Your task to perform on an android device: Search for dell xps on walmart.com, select the first entry, add it to the cart, then select checkout. Image 0: 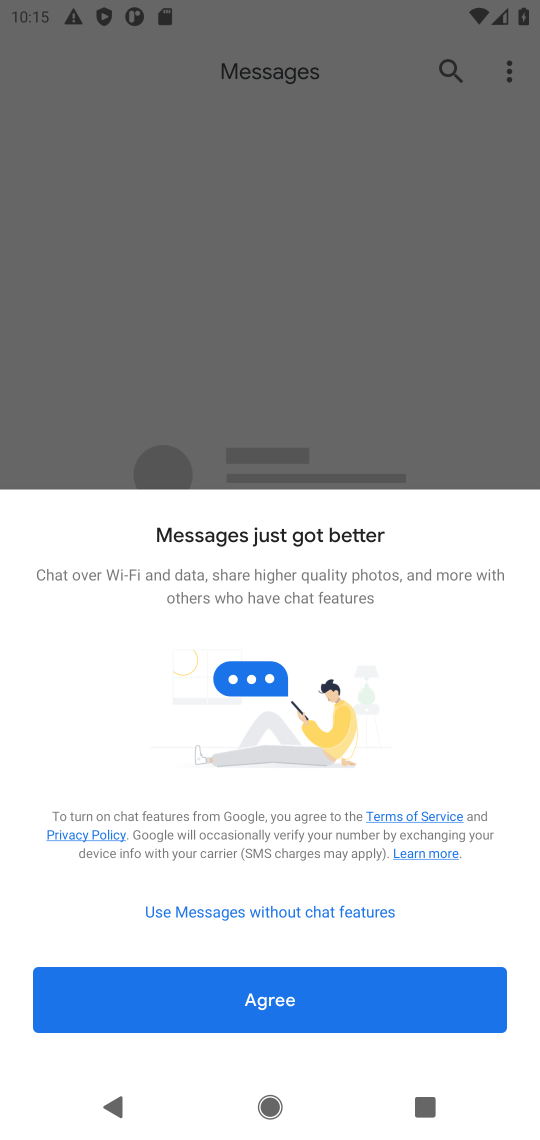
Step 0: press home button
Your task to perform on an android device: Search for dell xps on walmart.com, select the first entry, add it to the cart, then select checkout. Image 1: 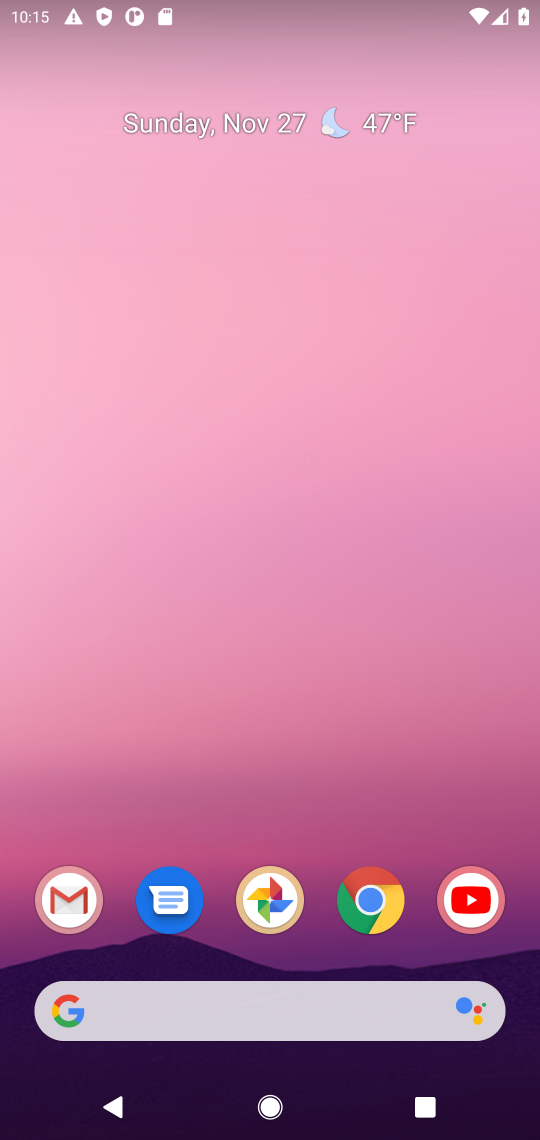
Step 1: click (368, 910)
Your task to perform on an android device: Search for dell xps on walmart.com, select the first entry, add it to the cart, then select checkout. Image 2: 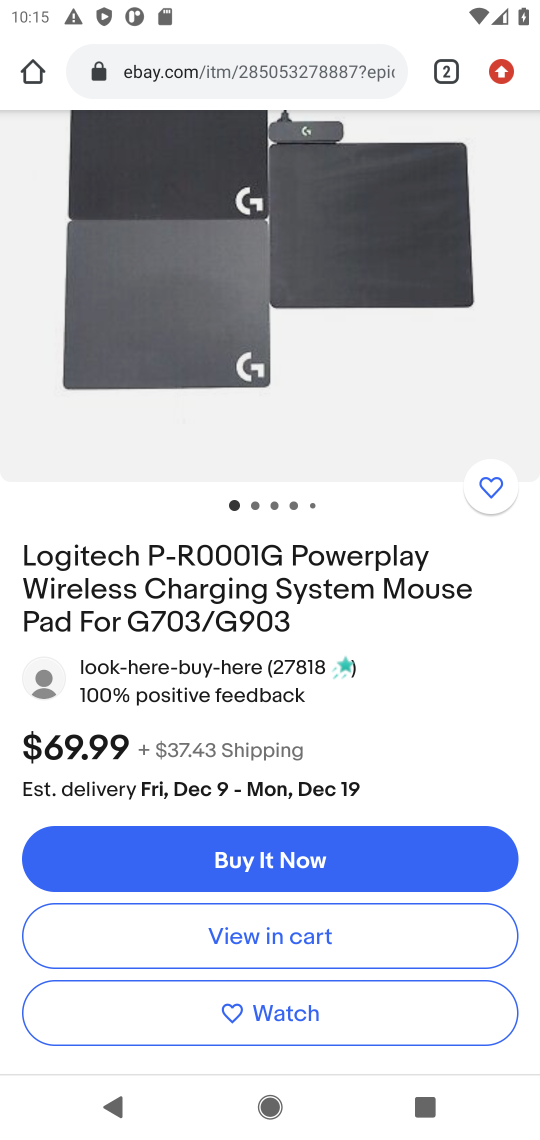
Step 2: click (240, 76)
Your task to perform on an android device: Search for dell xps on walmart.com, select the first entry, add it to the cart, then select checkout. Image 3: 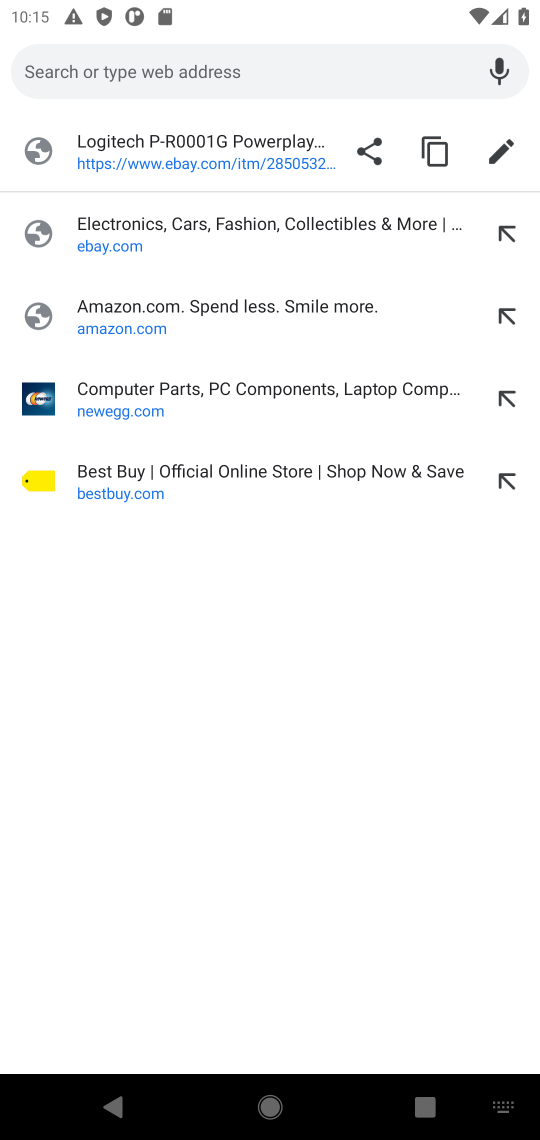
Step 3: type "walmart.com"
Your task to perform on an android device: Search for dell xps on walmart.com, select the first entry, add it to the cart, then select checkout. Image 4: 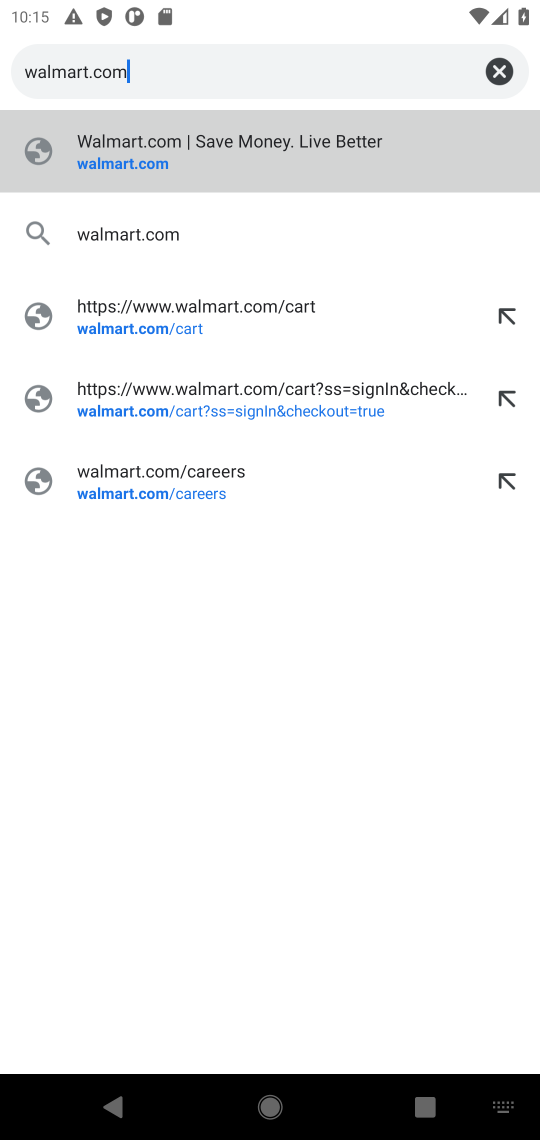
Step 4: click (96, 169)
Your task to perform on an android device: Search for dell xps on walmart.com, select the first entry, add it to the cart, then select checkout. Image 5: 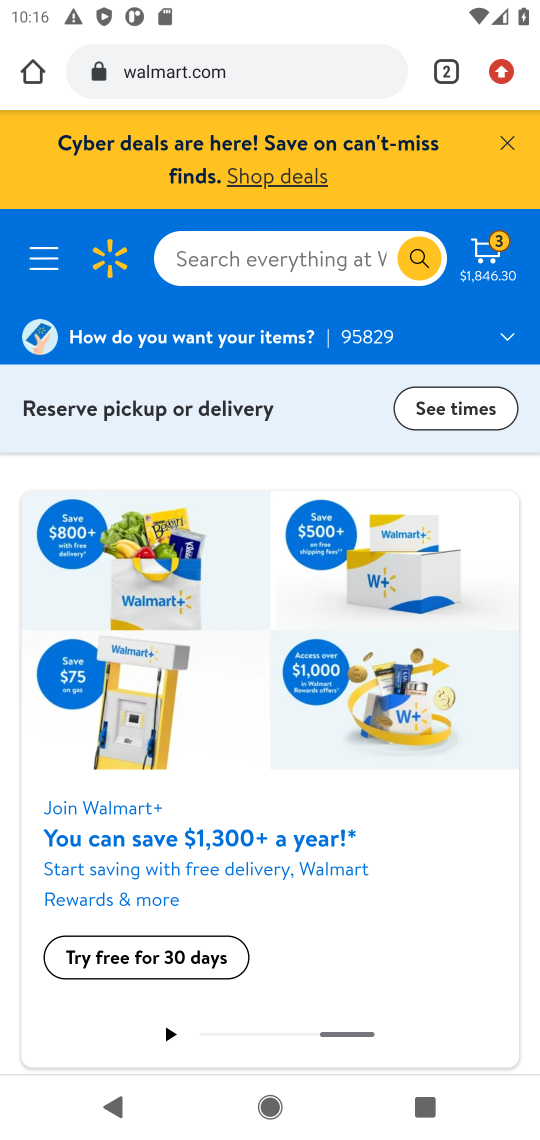
Step 5: click (241, 263)
Your task to perform on an android device: Search for dell xps on walmart.com, select the first entry, add it to the cart, then select checkout. Image 6: 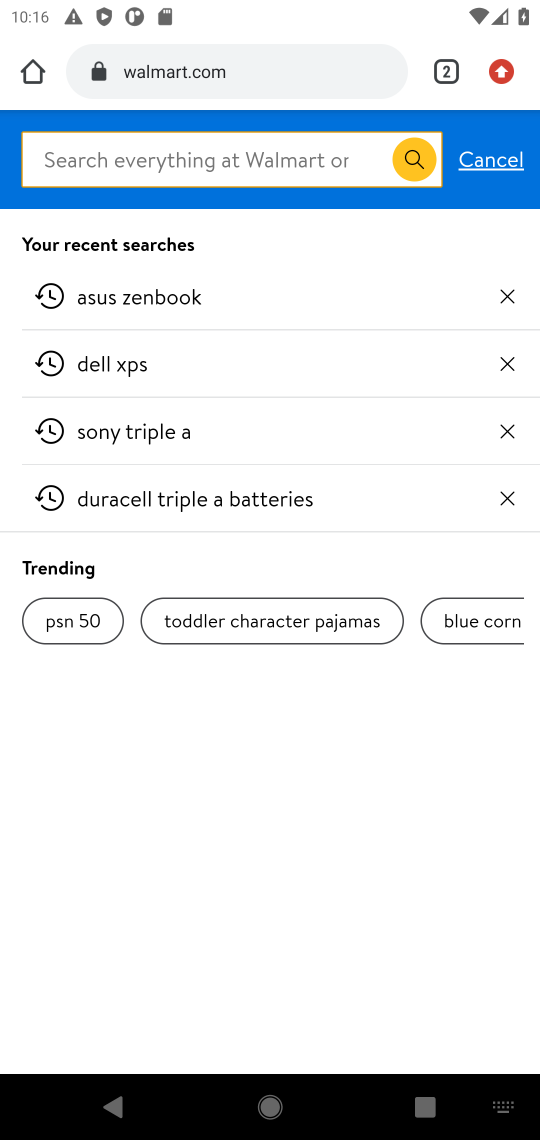
Step 6: type "dell xps"
Your task to perform on an android device: Search for dell xps on walmart.com, select the first entry, add it to the cart, then select checkout. Image 7: 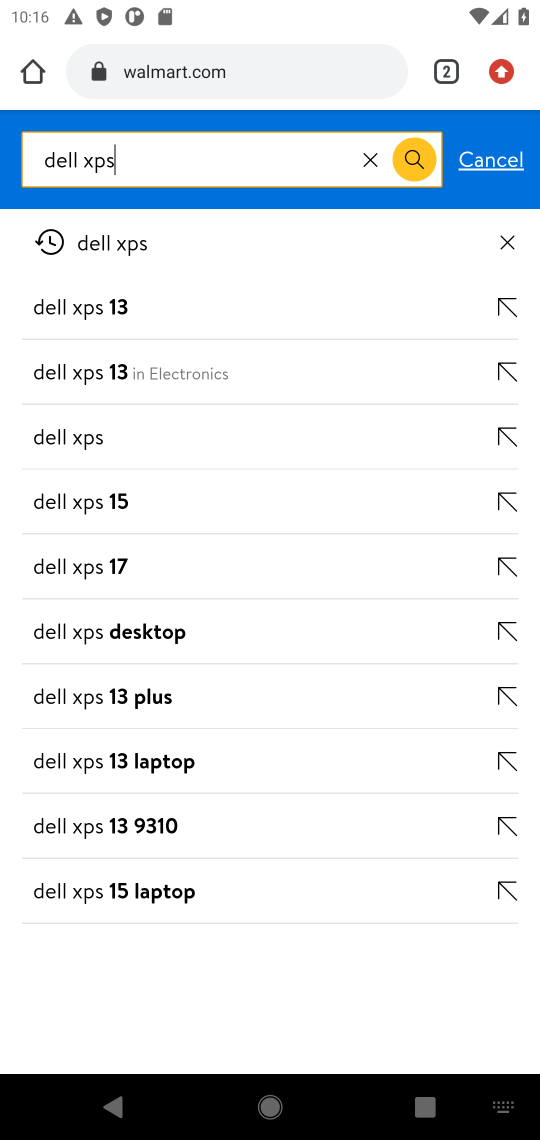
Step 7: click (105, 242)
Your task to perform on an android device: Search for dell xps on walmart.com, select the first entry, add it to the cart, then select checkout. Image 8: 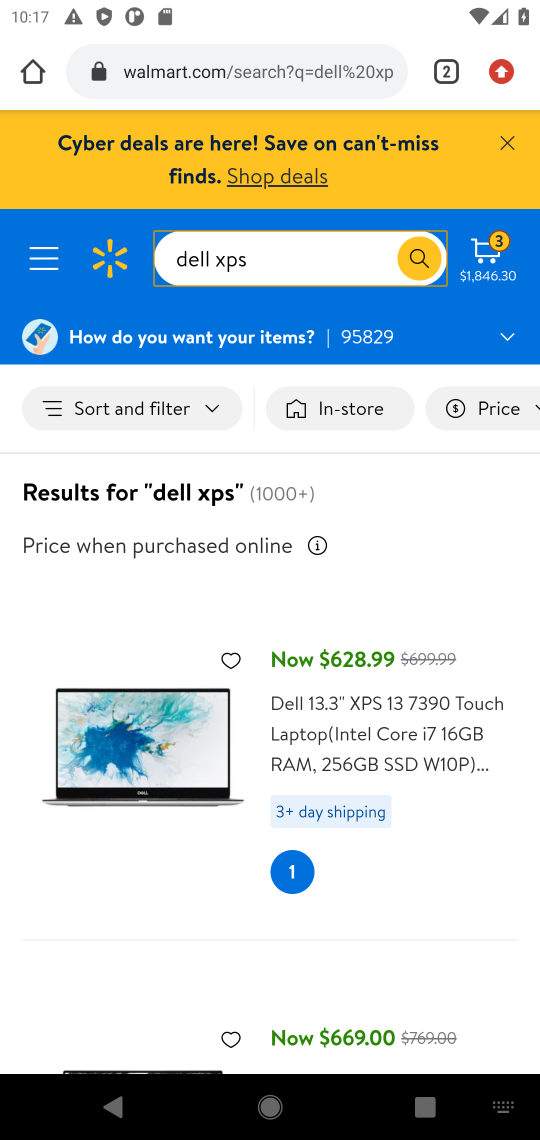
Step 8: click (339, 747)
Your task to perform on an android device: Search for dell xps on walmart.com, select the first entry, add it to the cart, then select checkout. Image 9: 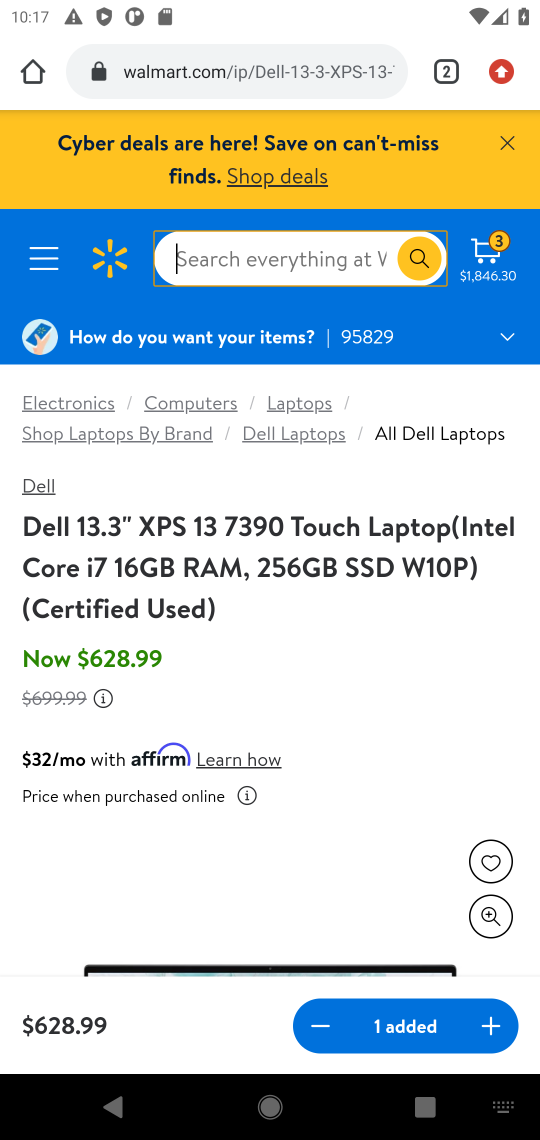
Step 9: click (386, 1037)
Your task to perform on an android device: Search for dell xps on walmart.com, select the first entry, add it to the cart, then select checkout. Image 10: 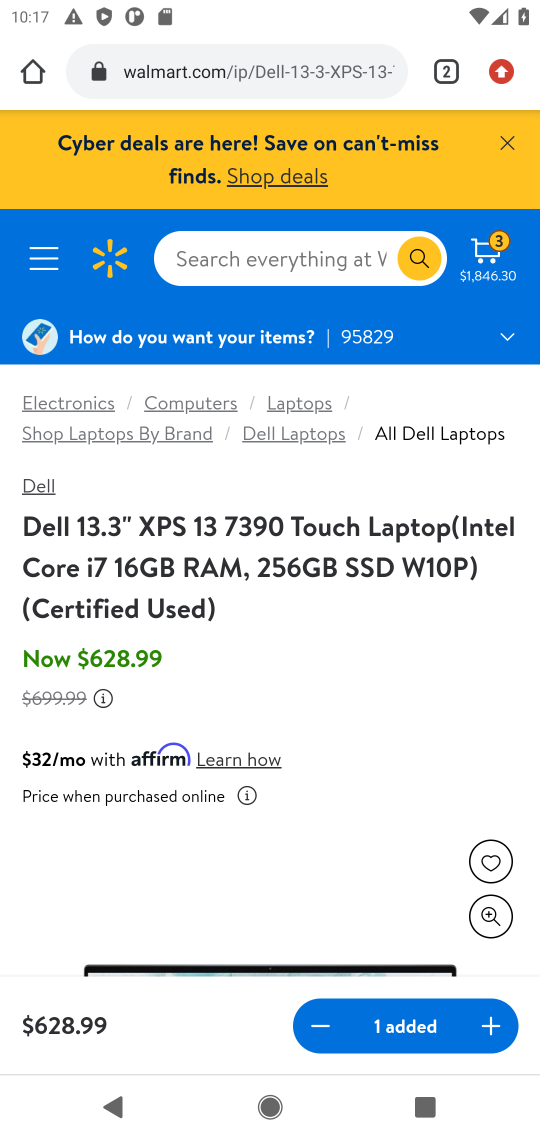
Step 10: click (494, 265)
Your task to perform on an android device: Search for dell xps on walmart.com, select the first entry, add it to the cart, then select checkout. Image 11: 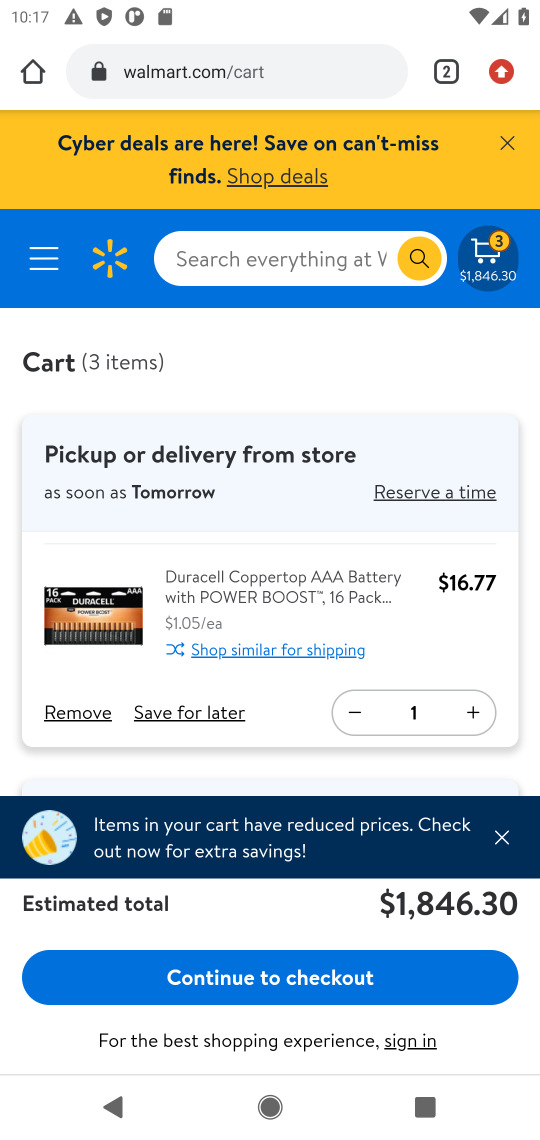
Step 11: click (266, 982)
Your task to perform on an android device: Search for dell xps on walmart.com, select the first entry, add it to the cart, then select checkout. Image 12: 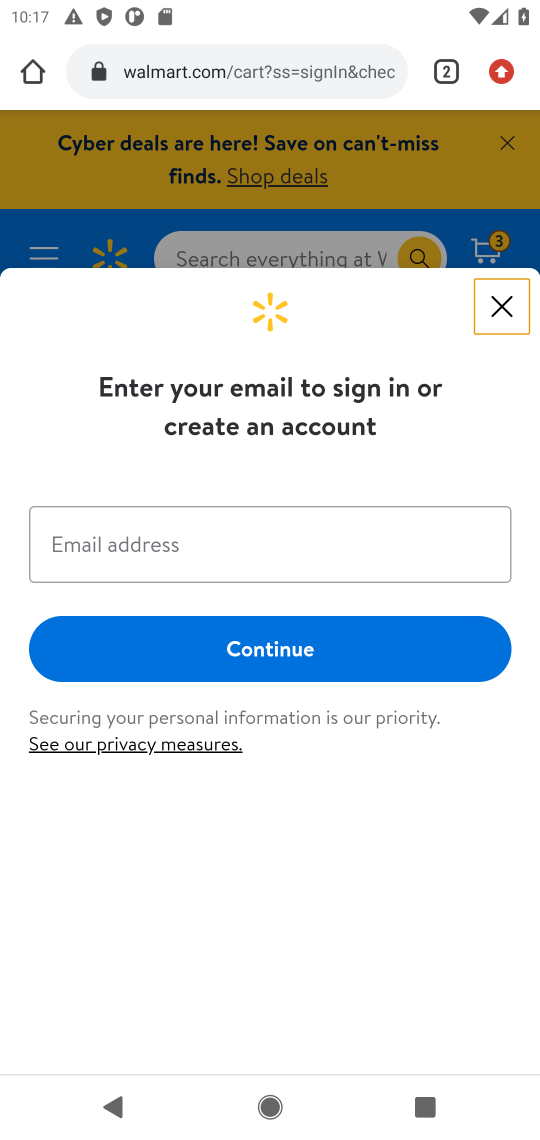
Step 12: task complete